Your task to perform on an android device: turn on priority inbox in the gmail app Image 0: 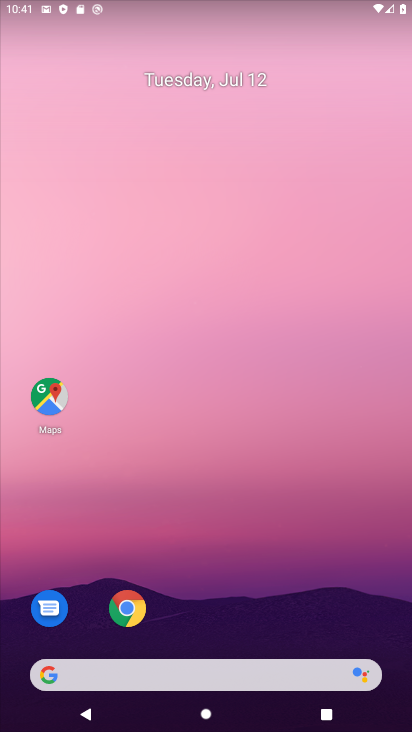
Step 0: drag from (155, 640) to (253, 51)
Your task to perform on an android device: turn on priority inbox in the gmail app Image 1: 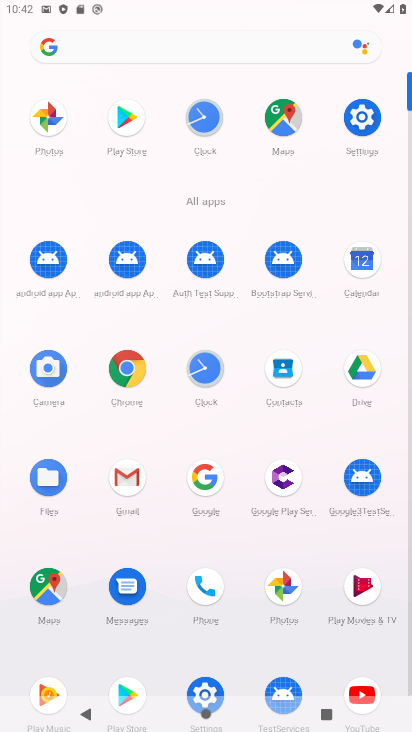
Step 1: click (138, 484)
Your task to perform on an android device: turn on priority inbox in the gmail app Image 2: 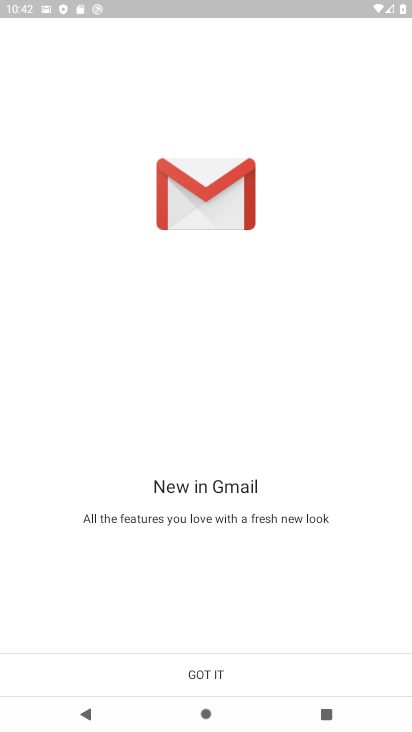
Step 2: click (239, 684)
Your task to perform on an android device: turn on priority inbox in the gmail app Image 3: 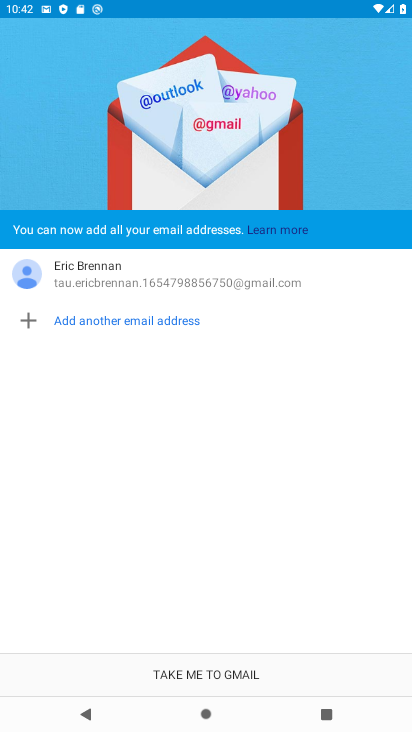
Step 3: click (239, 684)
Your task to perform on an android device: turn on priority inbox in the gmail app Image 4: 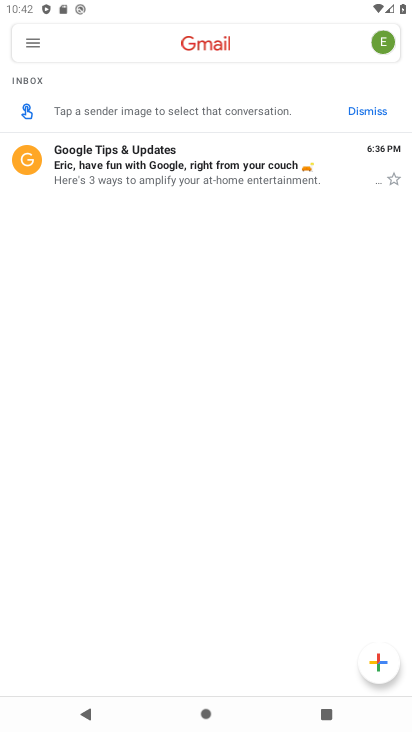
Step 4: click (40, 47)
Your task to perform on an android device: turn on priority inbox in the gmail app Image 5: 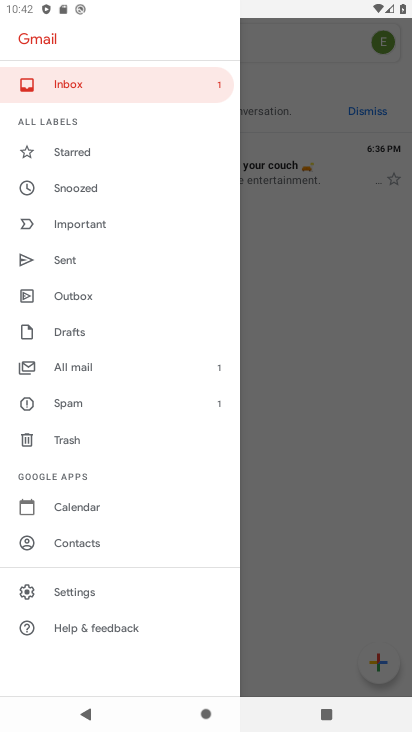
Step 5: click (67, 591)
Your task to perform on an android device: turn on priority inbox in the gmail app Image 6: 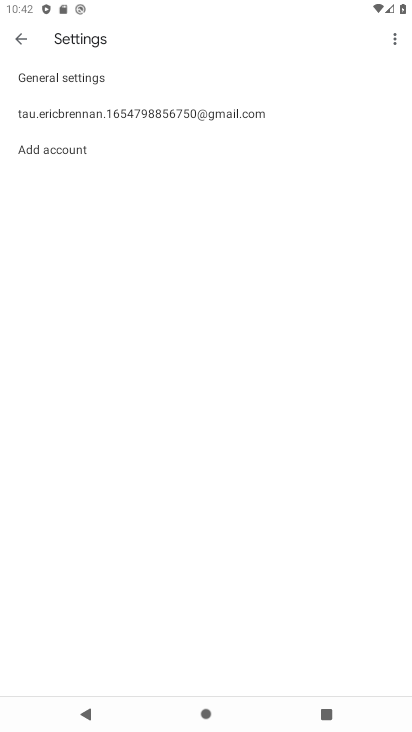
Step 6: click (192, 100)
Your task to perform on an android device: turn on priority inbox in the gmail app Image 7: 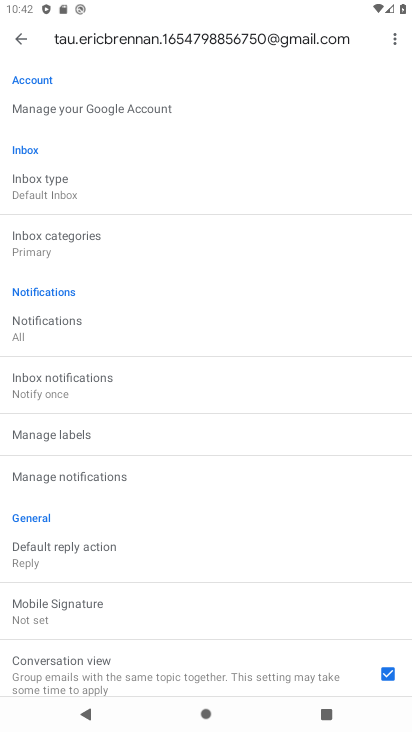
Step 7: click (28, 191)
Your task to perform on an android device: turn on priority inbox in the gmail app Image 8: 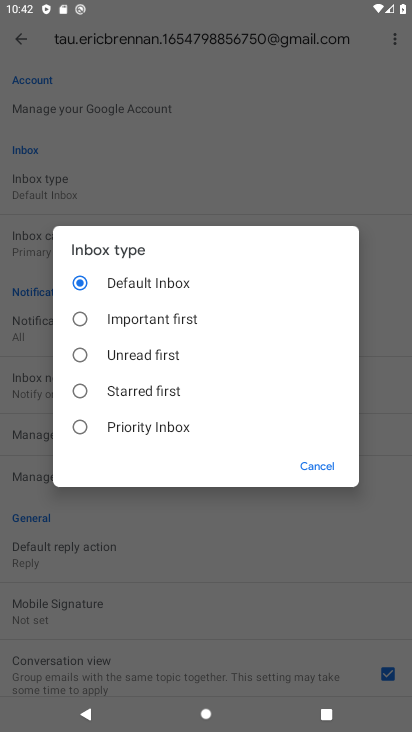
Step 8: click (171, 420)
Your task to perform on an android device: turn on priority inbox in the gmail app Image 9: 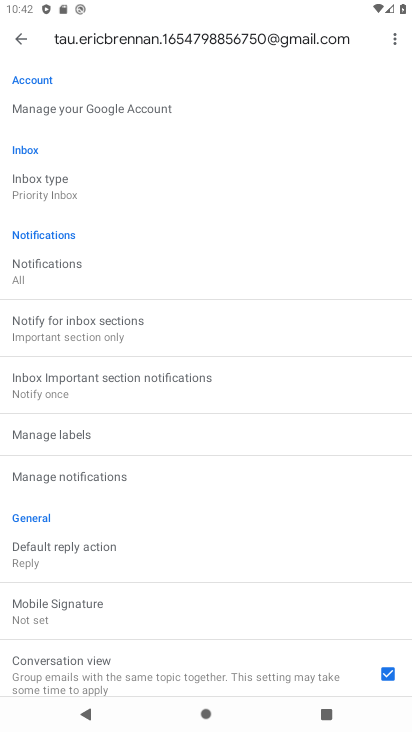
Step 9: task complete